Your task to perform on an android device: turn off improve location accuracy Image 0: 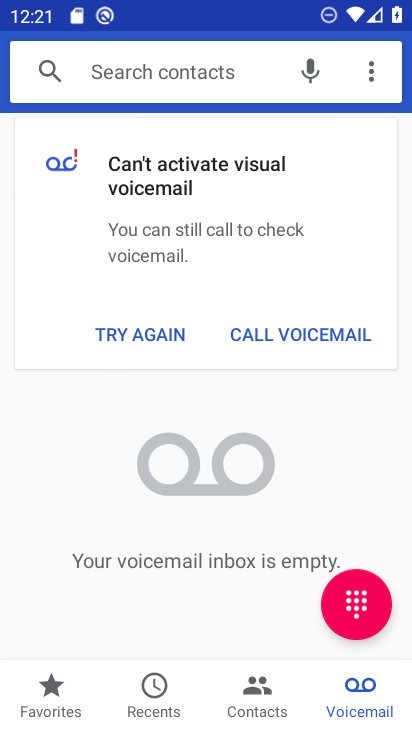
Step 0: press home button
Your task to perform on an android device: turn off improve location accuracy Image 1: 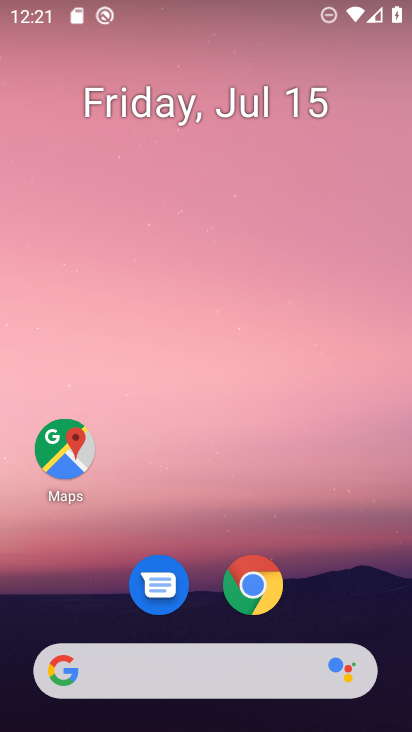
Step 1: drag from (289, 518) to (260, 69)
Your task to perform on an android device: turn off improve location accuracy Image 2: 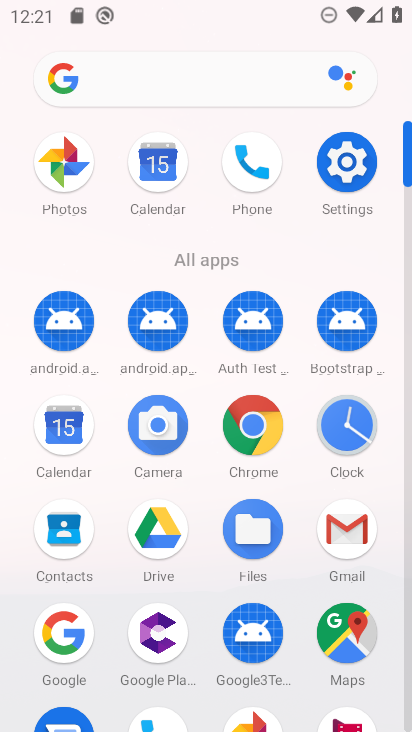
Step 2: click (334, 167)
Your task to perform on an android device: turn off improve location accuracy Image 3: 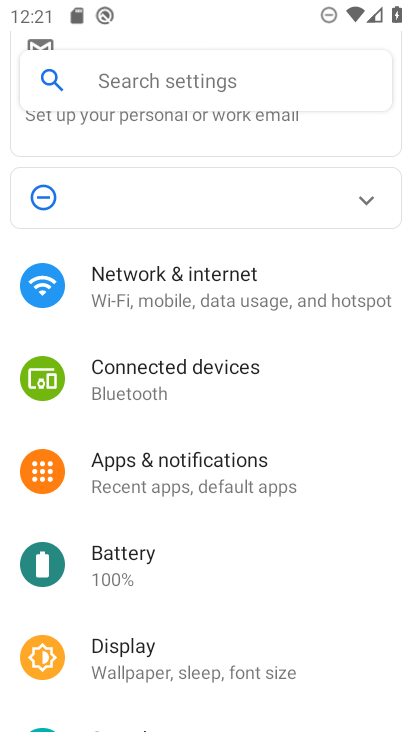
Step 3: drag from (225, 516) to (251, 159)
Your task to perform on an android device: turn off improve location accuracy Image 4: 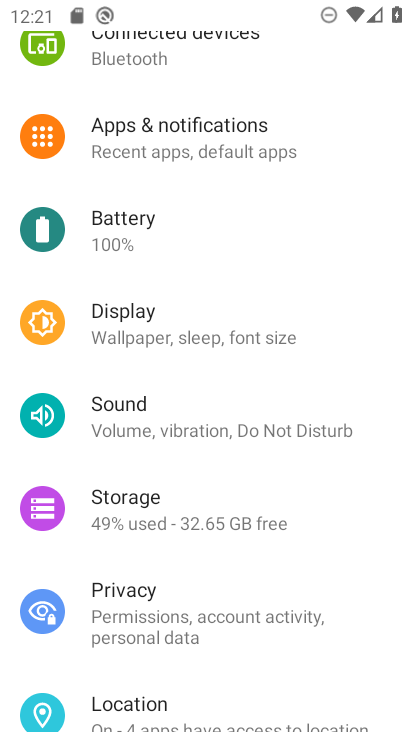
Step 4: drag from (217, 563) to (223, 163)
Your task to perform on an android device: turn off improve location accuracy Image 5: 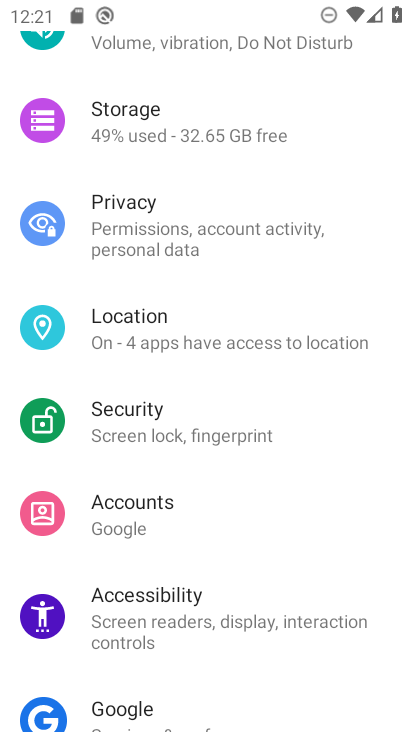
Step 5: click (233, 336)
Your task to perform on an android device: turn off improve location accuracy Image 6: 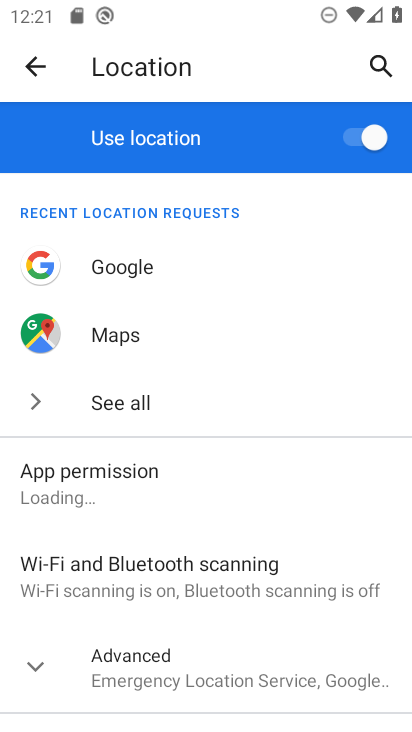
Step 6: click (37, 666)
Your task to perform on an android device: turn off improve location accuracy Image 7: 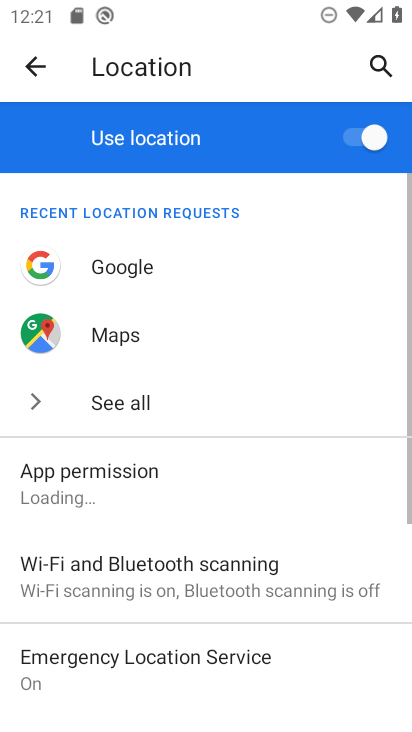
Step 7: drag from (261, 527) to (289, 131)
Your task to perform on an android device: turn off improve location accuracy Image 8: 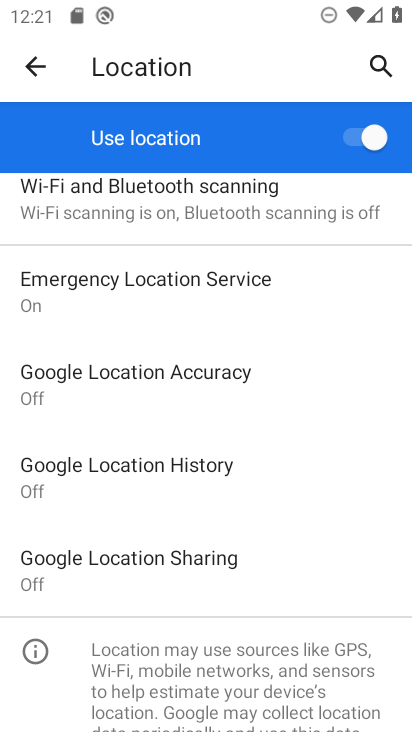
Step 8: click (192, 377)
Your task to perform on an android device: turn off improve location accuracy Image 9: 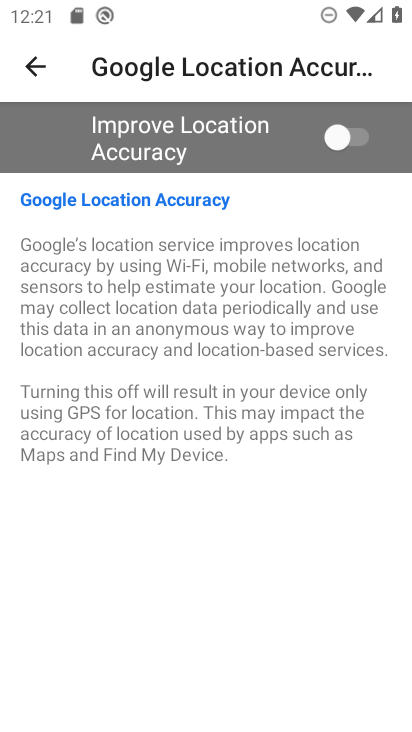
Step 9: task complete